Your task to perform on an android device: set the stopwatch Image 0: 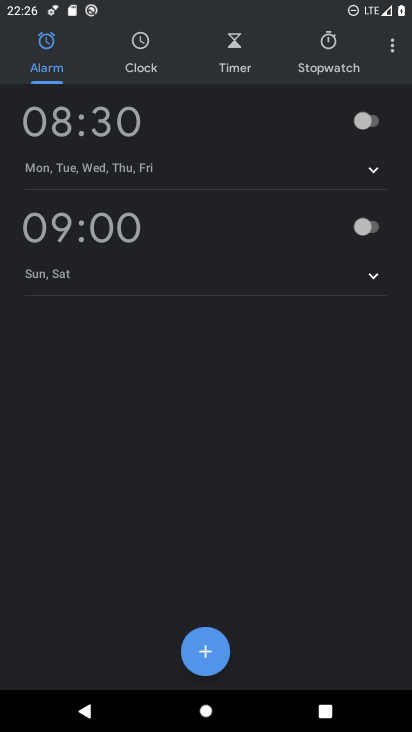
Step 0: click (332, 56)
Your task to perform on an android device: set the stopwatch Image 1: 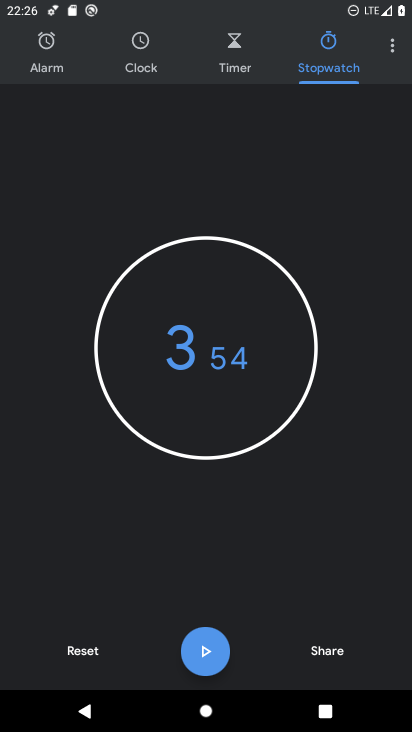
Step 1: task complete